Your task to perform on an android device: clear history in the chrome app Image 0: 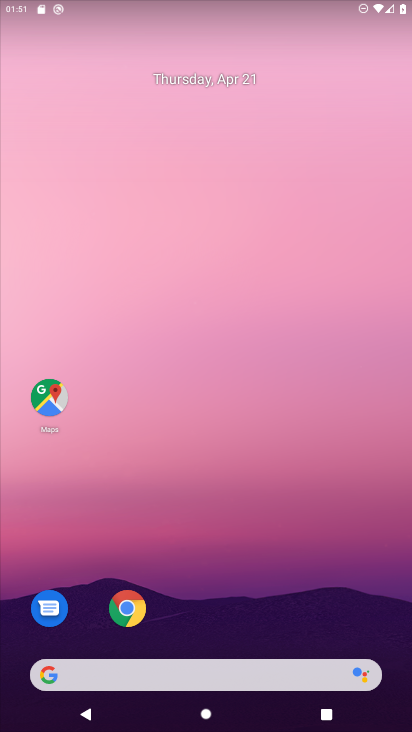
Step 0: drag from (195, 606) to (288, 171)
Your task to perform on an android device: clear history in the chrome app Image 1: 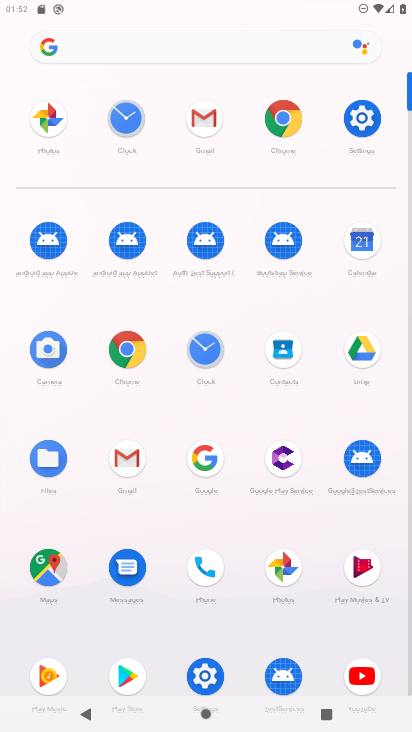
Step 1: click (274, 116)
Your task to perform on an android device: clear history in the chrome app Image 2: 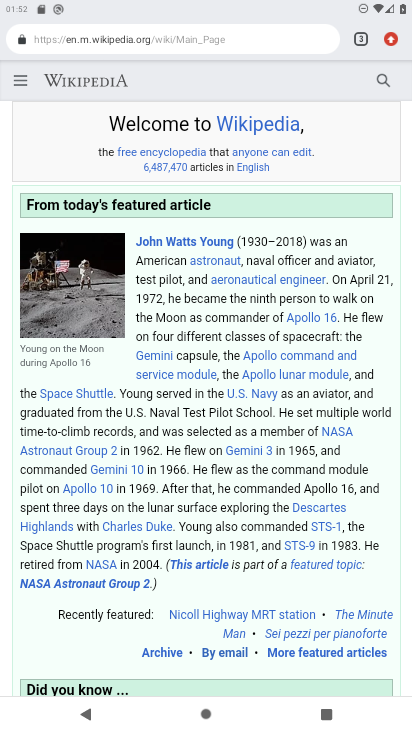
Step 2: click (391, 41)
Your task to perform on an android device: clear history in the chrome app Image 3: 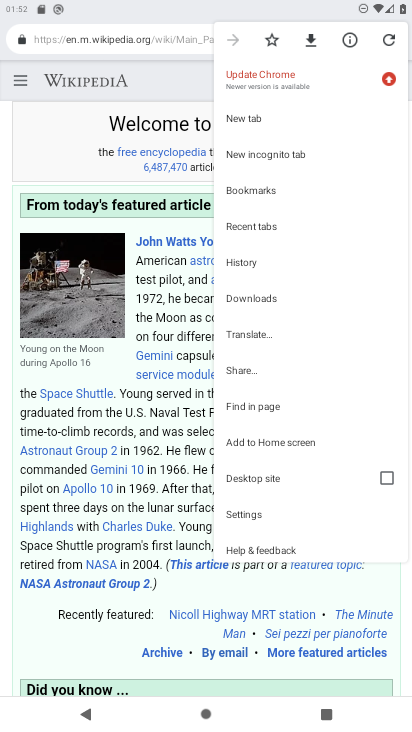
Step 3: click (255, 270)
Your task to perform on an android device: clear history in the chrome app Image 4: 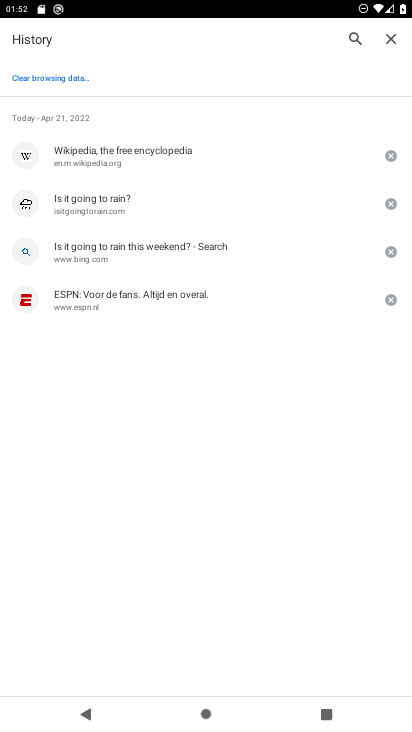
Step 4: click (51, 74)
Your task to perform on an android device: clear history in the chrome app Image 5: 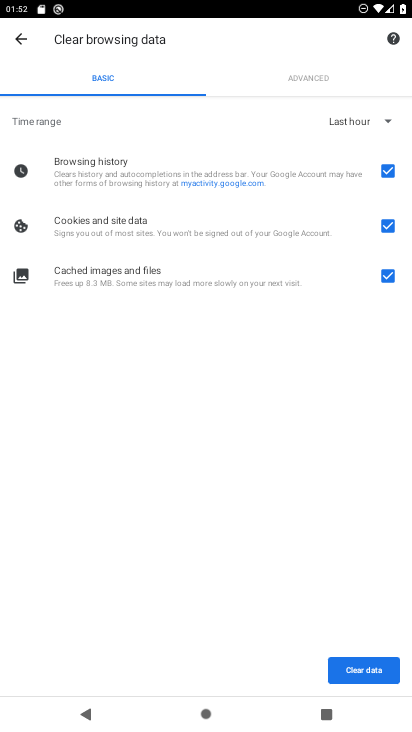
Step 5: click (356, 662)
Your task to perform on an android device: clear history in the chrome app Image 6: 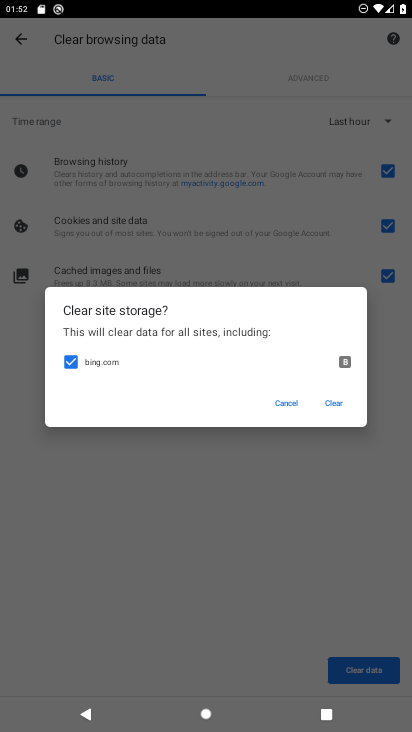
Step 6: click (343, 403)
Your task to perform on an android device: clear history in the chrome app Image 7: 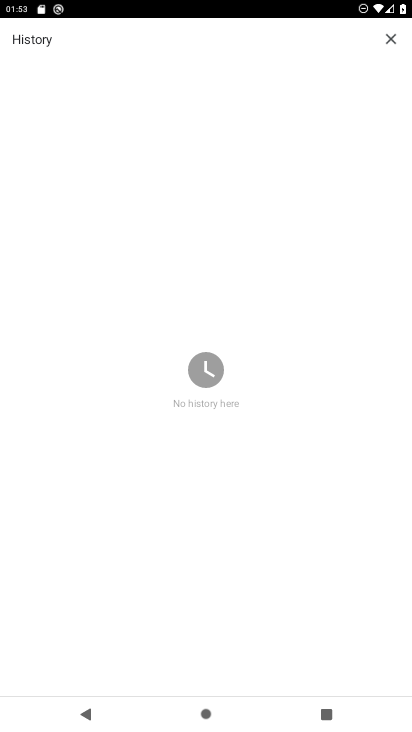
Step 7: task complete